Your task to perform on an android device: open chrome privacy settings Image 0: 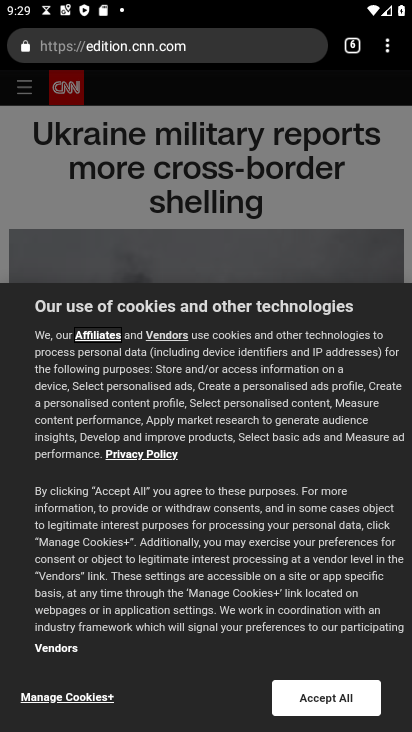
Step 0: click (390, 41)
Your task to perform on an android device: open chrome privacy settings Image 1: 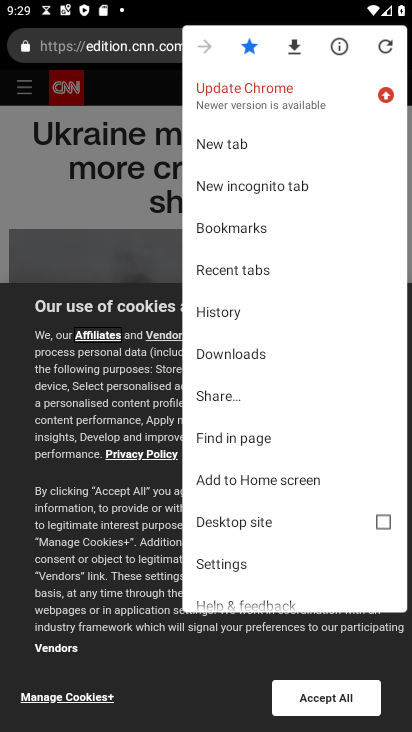
Step 1: click (208, 569)
Your task to perform on an android device: open chrome privacy settings Image 2: 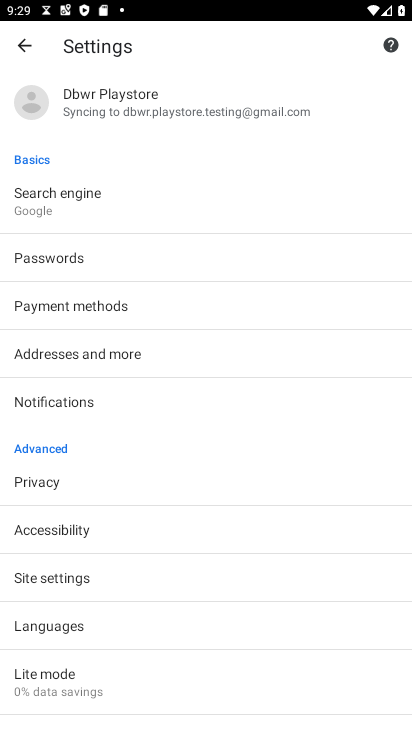
Step 2: click (73, 475)
Your task to perform on an android device: open chrome privacy settings Image 3: 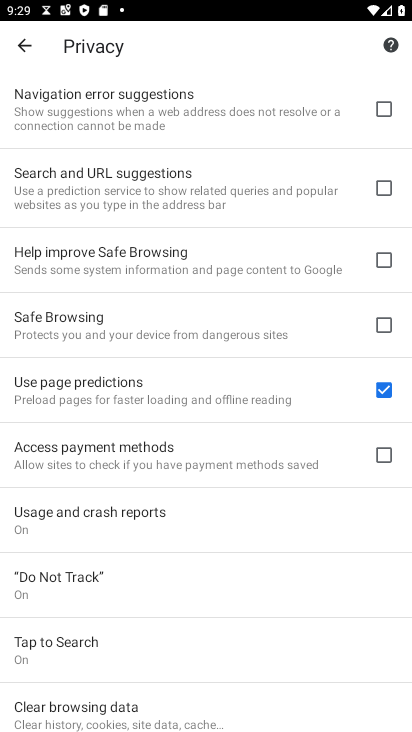
Step 3: task complete